Your task to perform on an android device: Open accessibility settings Image 0: 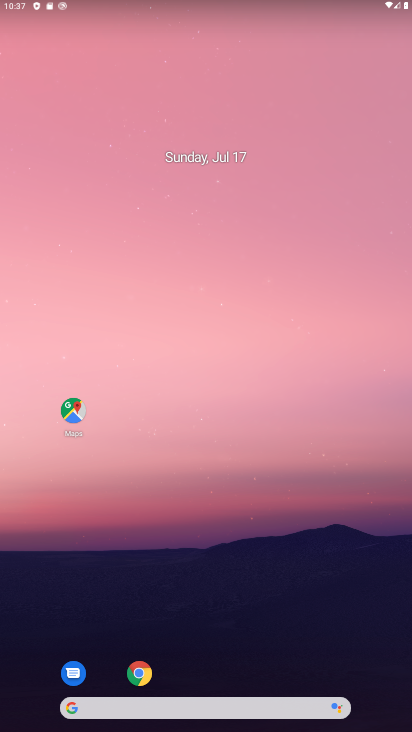
Step 0: drag from (237, 325) to (240, 227)
Your task to perform on an android device: Open accessibility settings Image 1: 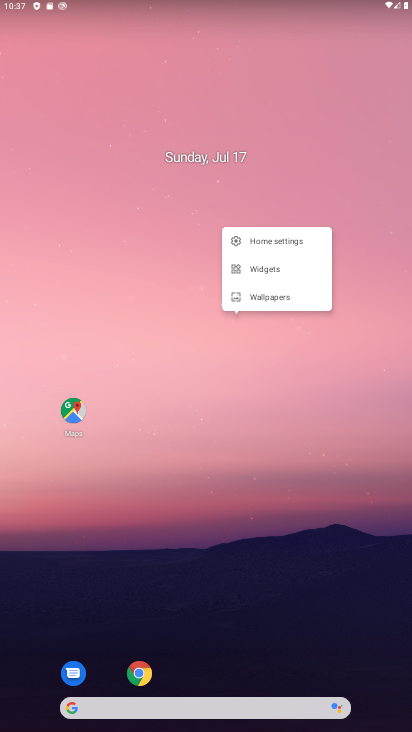
Step 1: drag from (213, 655) to (241, 155)
Your task to perform on an android device: Open accessibility settings Image 2: 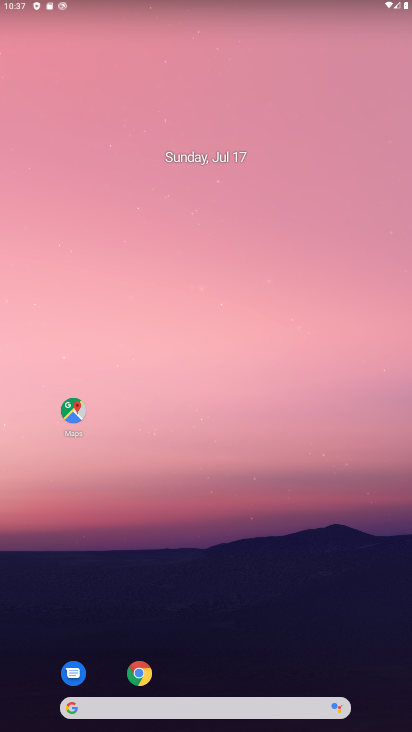
Step 2: drag from (215, 589) to (256, 89)
Your task to perform on an android device: Open accessibility settings Image 3: 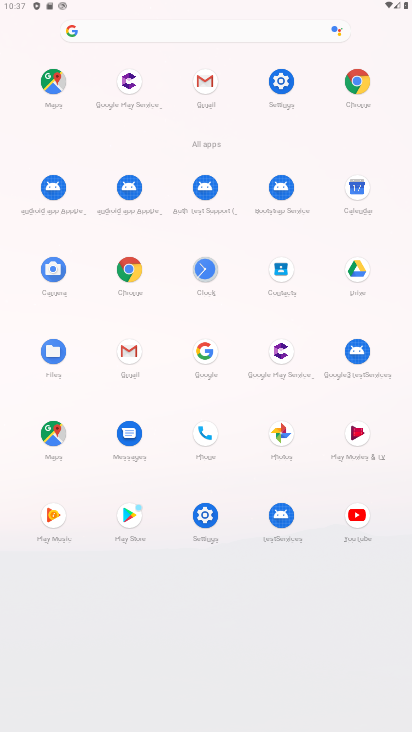
Step 3: click (203, 524)
Your task to perform on an android device: Open accessibility settings Image 4: 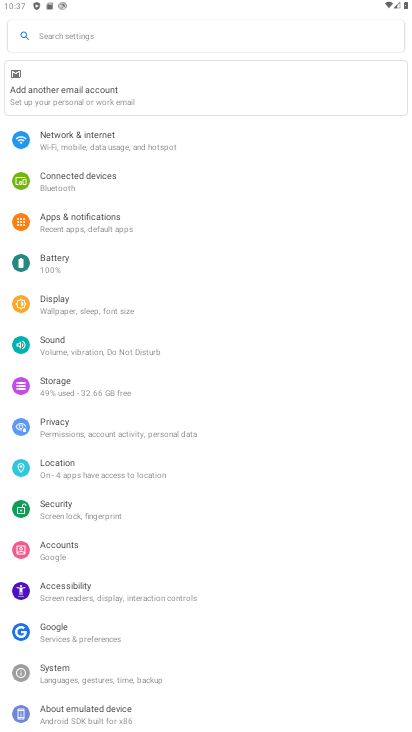
Step 4: click (127, 592)
Your task to perform on an android device: Open accessibility settings Image 5: 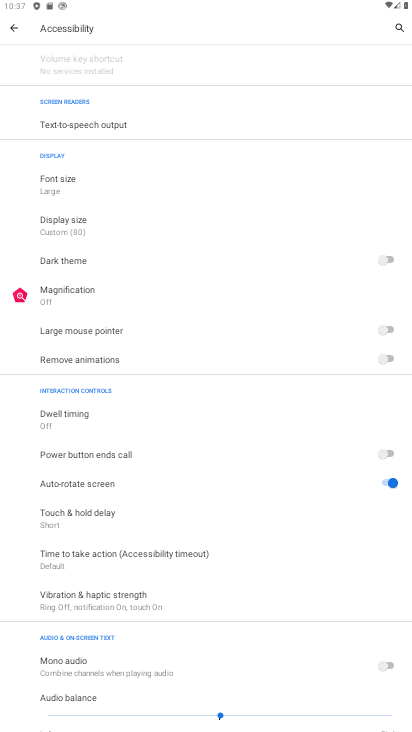
Step 5: task complete